Your task to perform on an android device: Show me productivity apps on the Play Store Image 0: 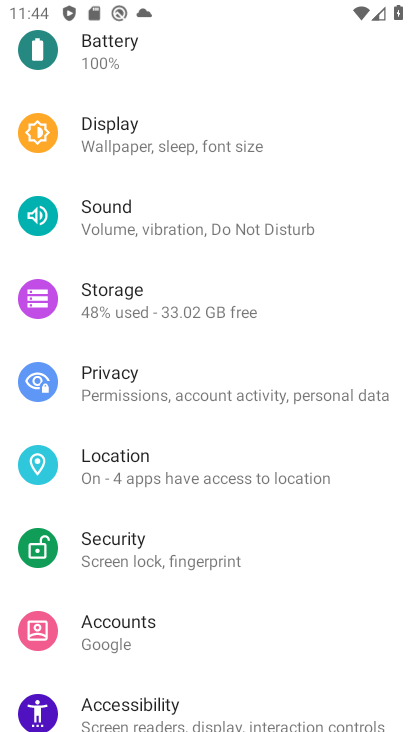
Step 0: press home button
Your task to perform on an android device: Show me productivity apps on the Play Store Image 1: 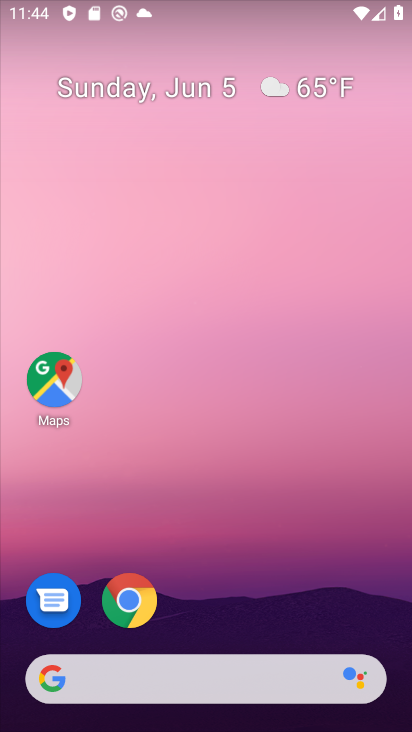
Step 1: drag from (400, 703) to (302, 163)
Your task to perform on an android device: Show me productivity apps on the Play Store Image 2: 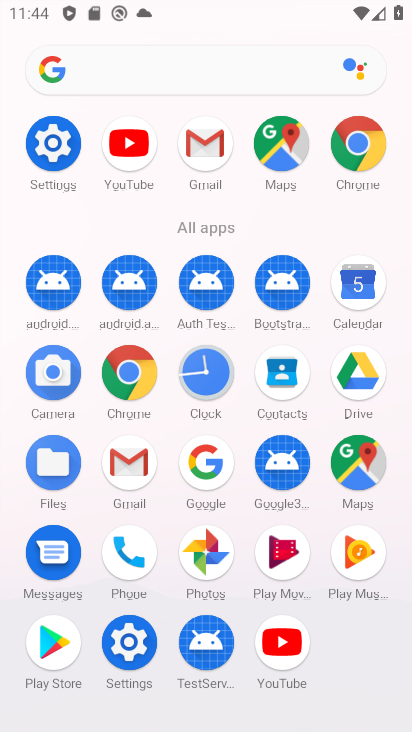
Step 2: click (66, 638)
Your task to perform on an android device: Show me productivity apps on the Play Store Image 3: 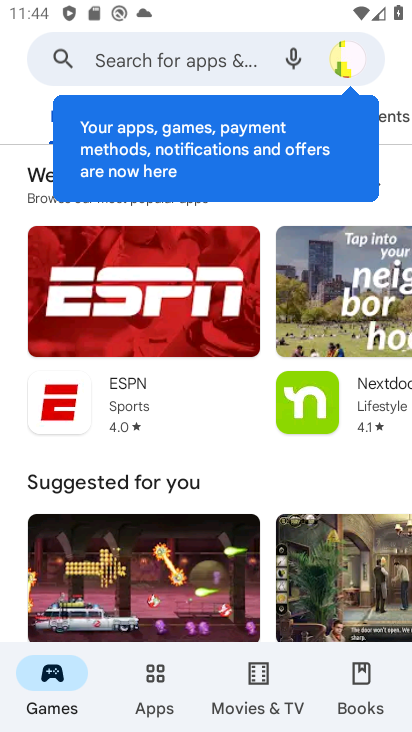
Step 3: click (196, 52)
Your task to perform on an android device: Show me productivity apps on the Play Store Image 4: 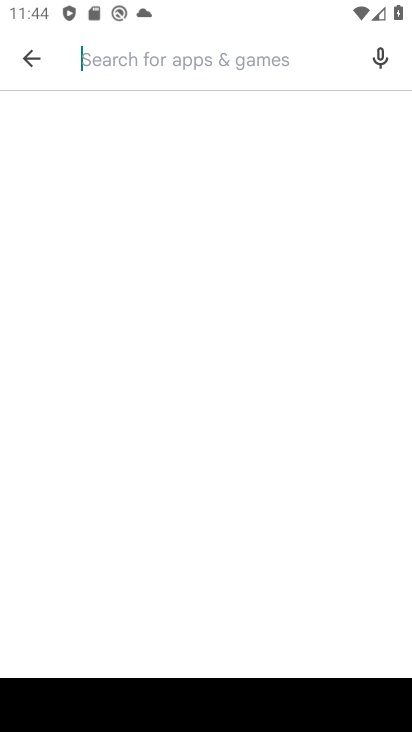
Step 4: type " productivity apps"
Your task to perform on an android device: Show me productivity apps on the Play Store Image 5: 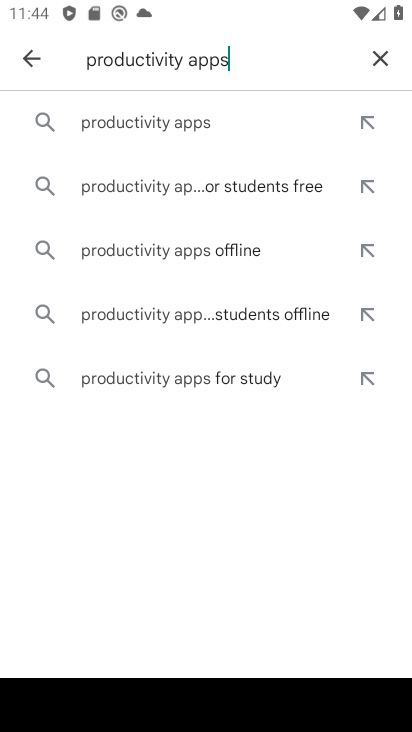
Step 5: click (187, 116)
Your task to perform on an android device: Show me productivity apps on the Play Store Image 6: 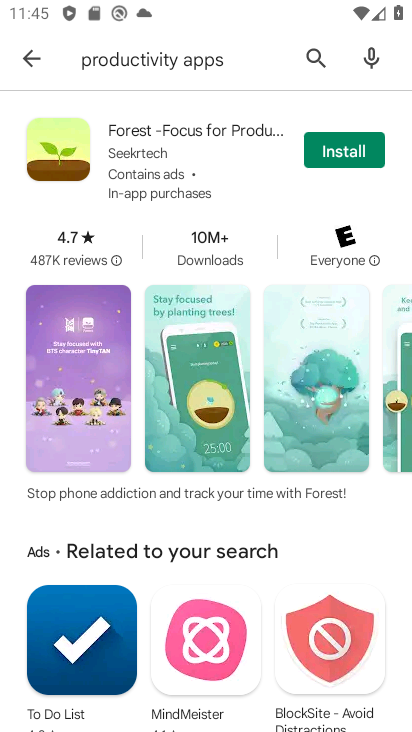
Step 6: task complete